Your task to perform on an android device: Search for Mexican restaurants on Maps Image 0: 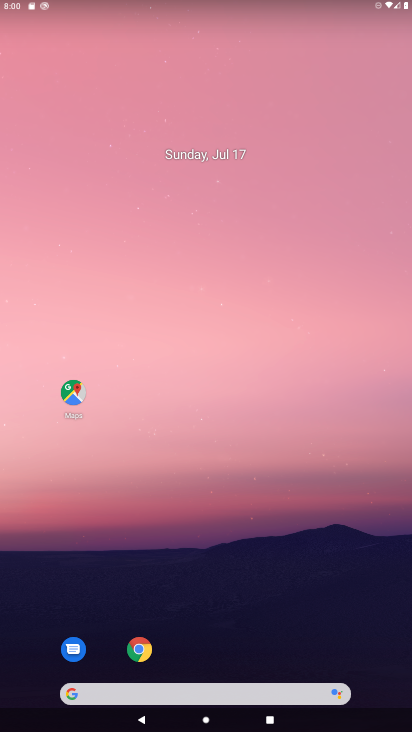
Step 0: click (69, 394)
Your task to perform on an android device: Search for Mexican restaurants on Maps Image 1: 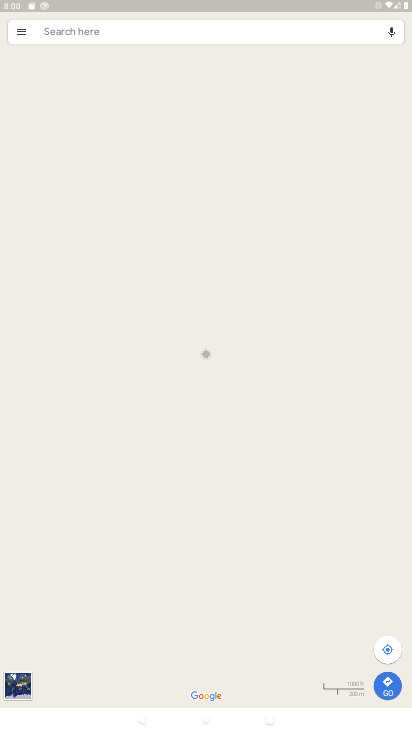
Step 1: click (122, 18)
Your task to perform on an android device: Search for Mexican restaurants on Maps Image 2: 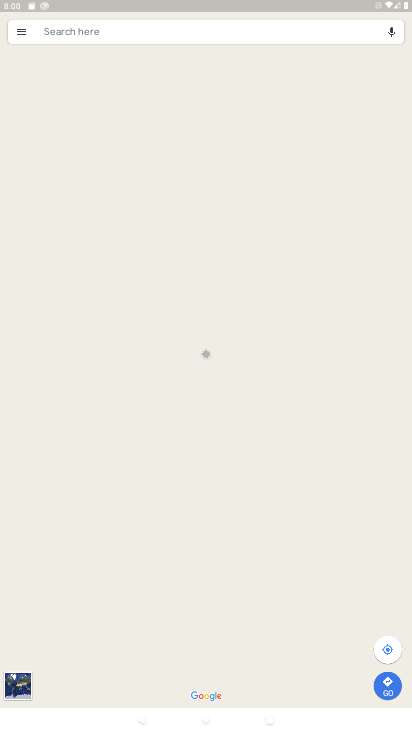
Step 2: click (124, 25)
Your task to perform on an android device: Search for Mexican restaurants on Maps Image 3: 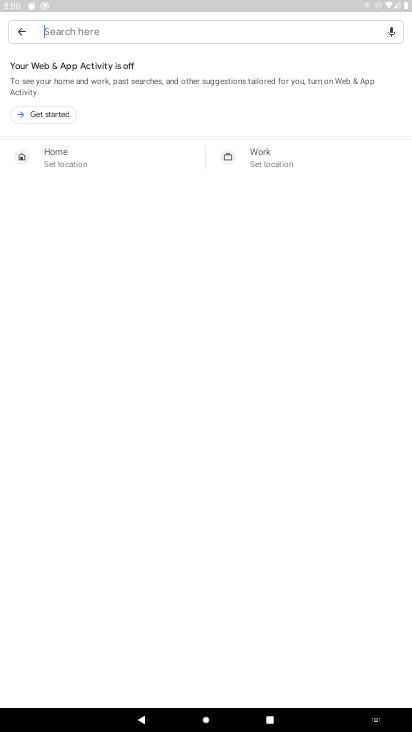
Step 3: click (52, 115)
Your task to perform on an android device: Search for Mexican restaurants on Maps Image 4: 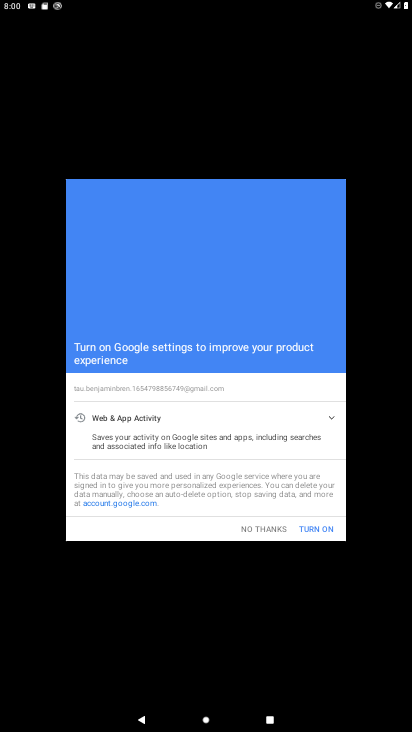
Step 4: click (322, 523)
Your task to perform on an android device: Search for Mexican restaurants on Maps Image 5: 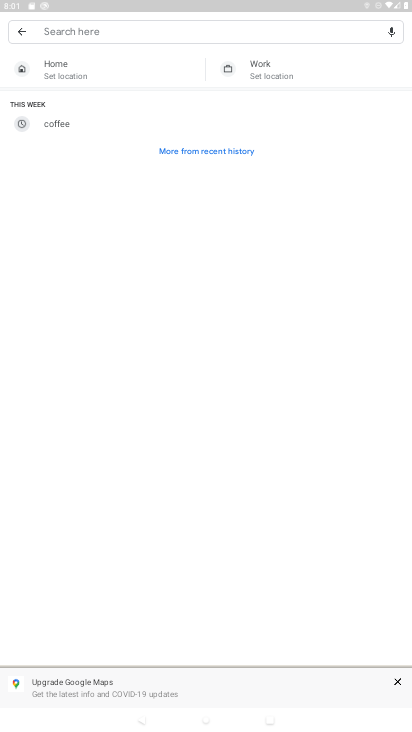
Step 5: click (104, 31)
Your task to perform on an android device: Search for Mexican restaurants on Maps Image 6: 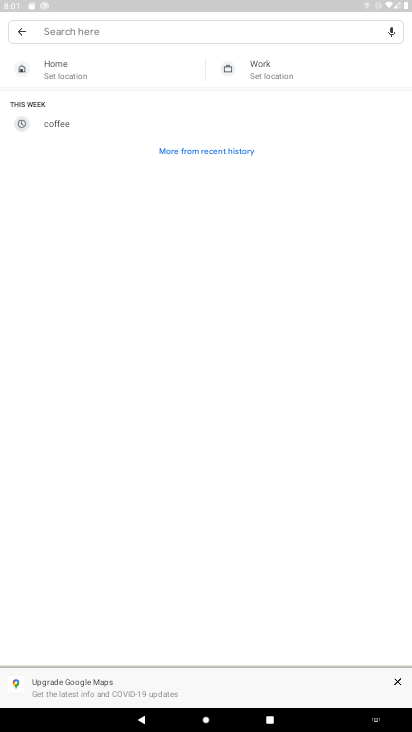
Step 6: type "Mexican restaurants "
Your task to perform on an android device: Search for Mexican restaurants on Maps Image 7: 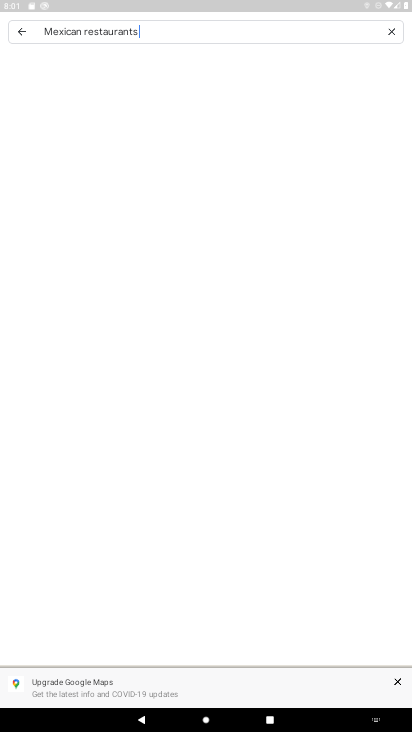
Step 7: type ""
Your task to perform on an android device: Search for Mexican restaurants on Maps Image 8: 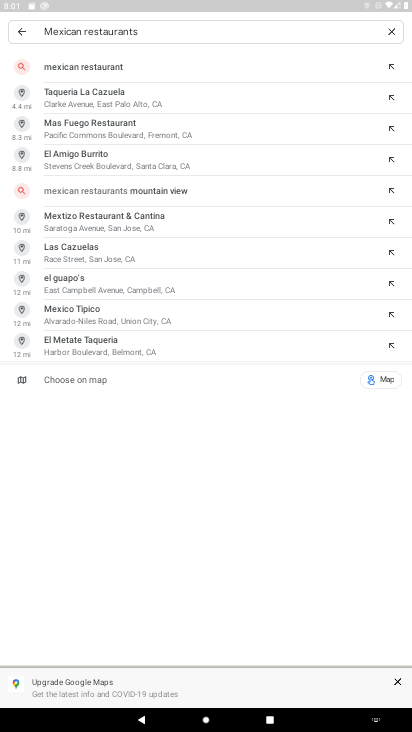
Step 8: click (95, 67)
Your task to perform on an android device: Search for Mexican restaurants on Maps Image 9: 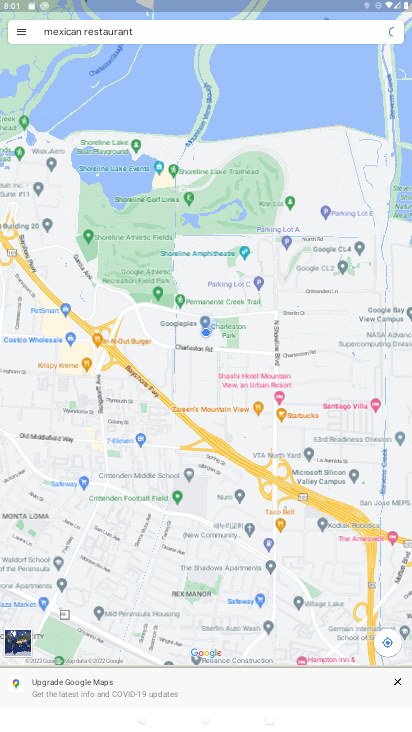
Step 9: task complete